Your task to perform on an android device: change the clock style Image 0: 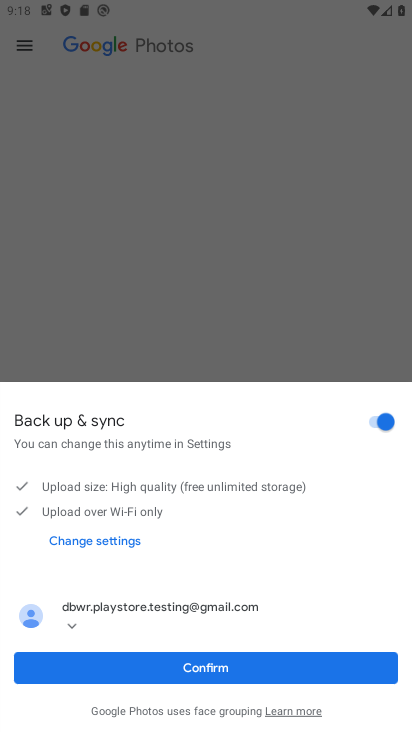
Step 0: press home button
Your task to perform on an android device: change the clock style Image 1: 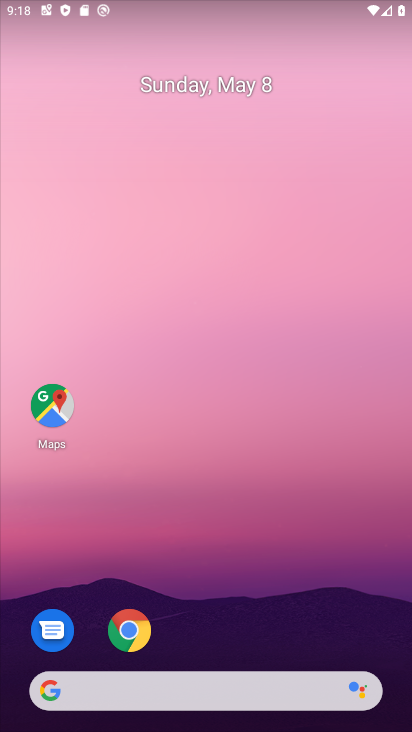
Step 1: drag from (196, 690) to (353, 83)
Your task to perform on an android device: change the clock style Image 2: 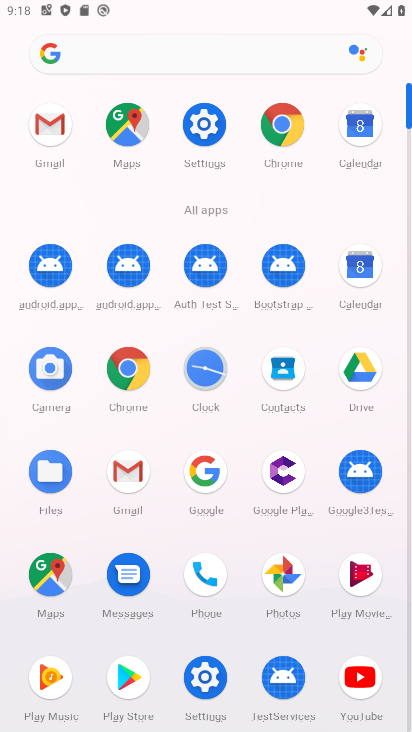
Step 2: click (199, 376)
Your task to perform on an android device: change the clock style Image 3: 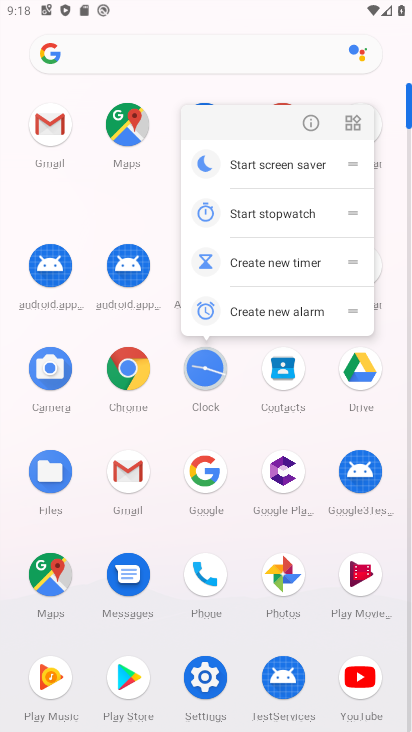
Step 3: click (199, 364)
Your task to perform on an android device: change the clock style Image 4: 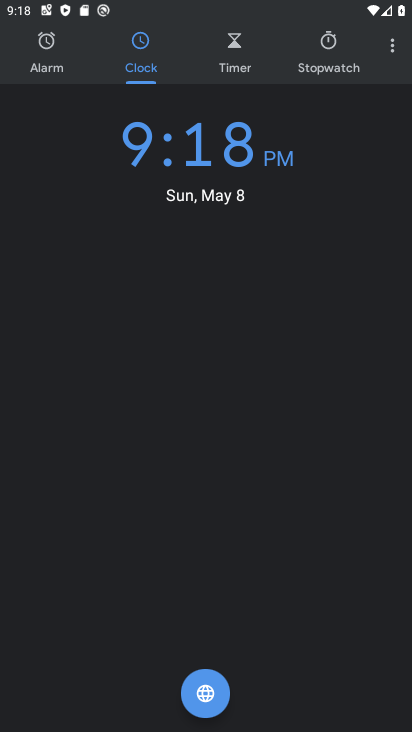
Step 4: click (393, 46)
Your task to perform on an android device: change the clock style Image 5: 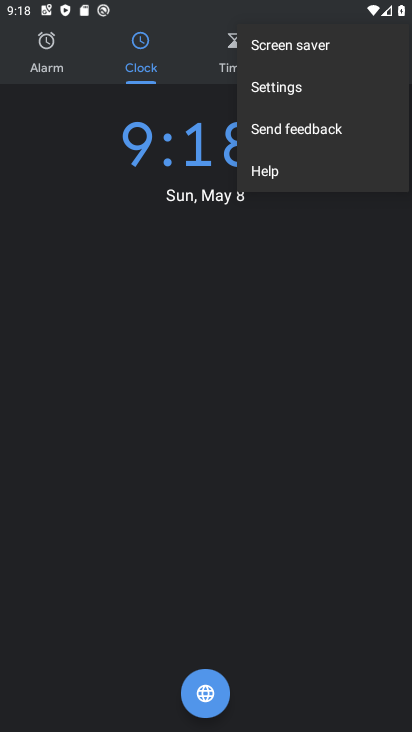
Step 5: click (292, 82)
Your task to perform on an android device: change the clock style Image 6: 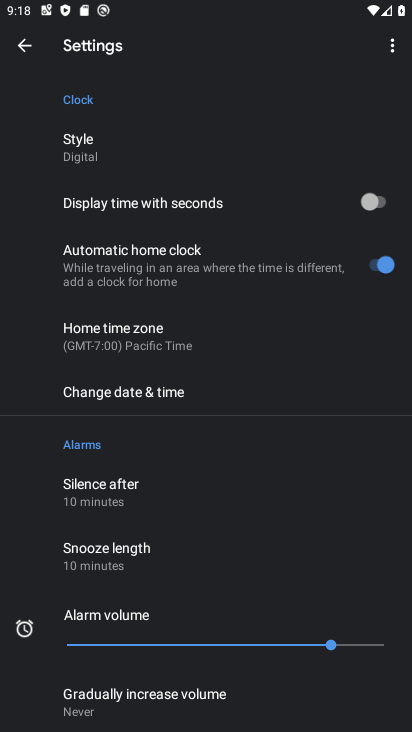
Step 6: click (85, 155)
Your task to perform on an android device: change the clock style Image 7: 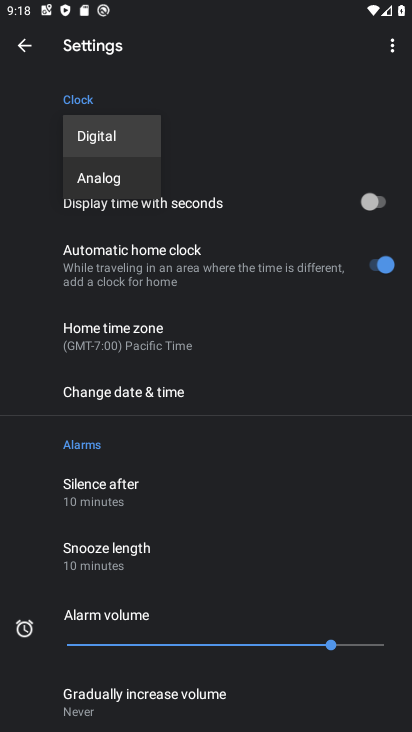
Step 7: click (112, 177)
Your task to perform on an android device: change the clock style Image 8: 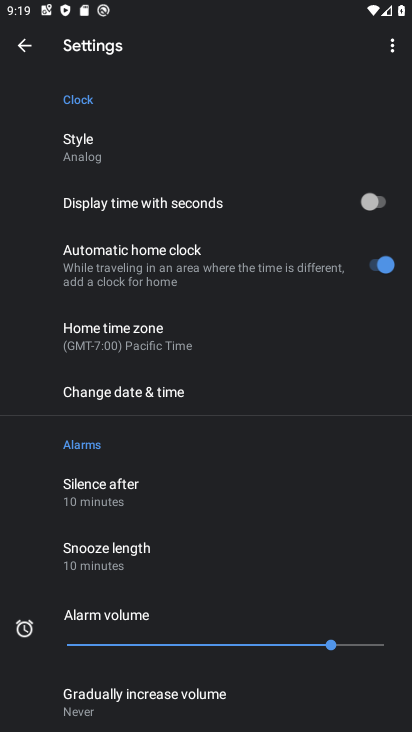
Step 8: task complete